Your task to perform on an android device: set the stopwatch Image 0: 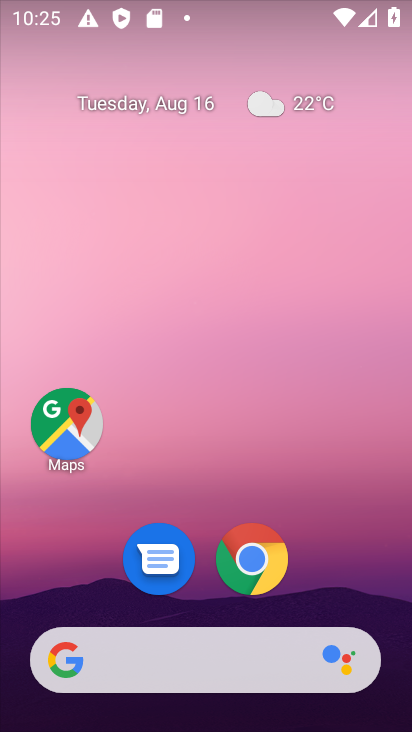
Step 0: drag from (194, 480) to (359, 686)
Your task to perform on an android device: set the stopwatch Image 1: 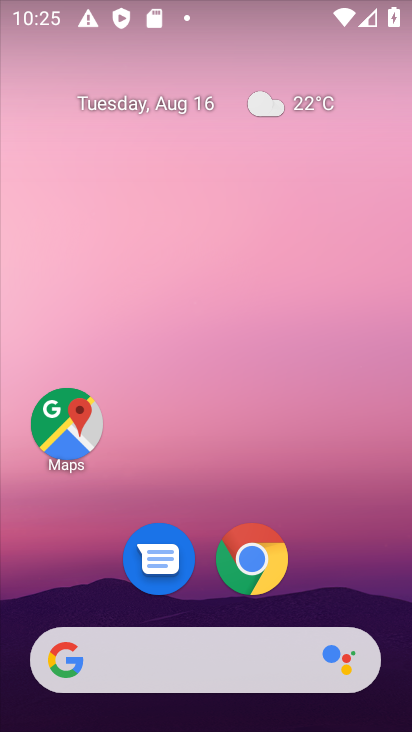
Step 1: drag from (204, 435) to (91, 2)
Your task to perform on an android device: set the stopwatch Image 2: 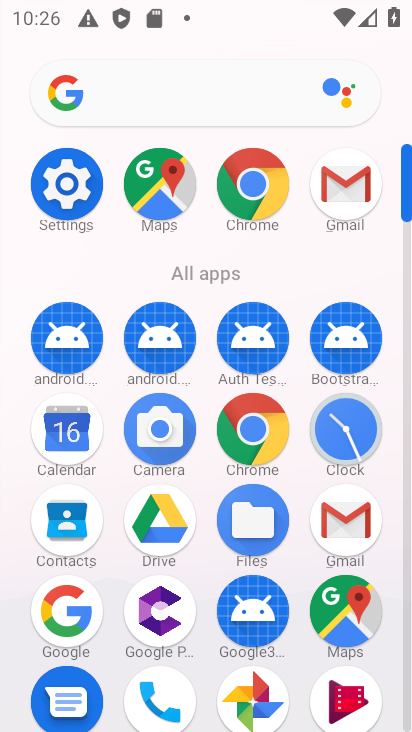
Step 2: click (347, 441)
Your task to perform on an android device: set the stopwatch Image 3: 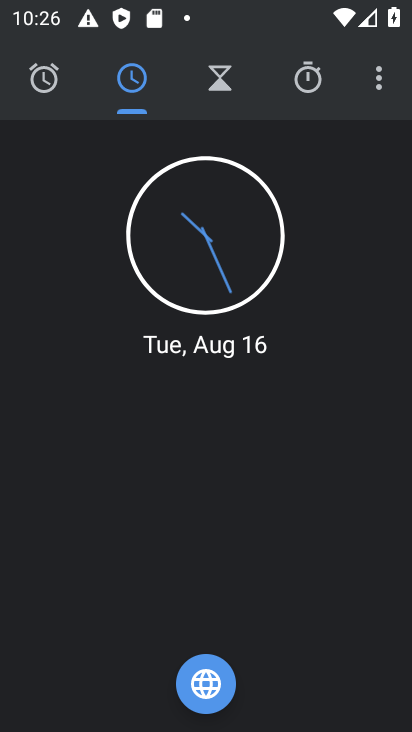
Step 3: click (308, 88)
Your task to perform on an android device: set the stopwatch Image 4: 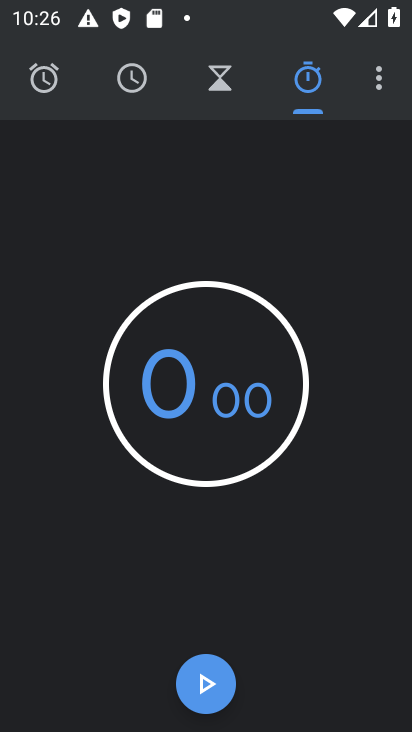
Step 4: click (210, 681)
Your task to perform on an android device: set the stopwatch Image 5: 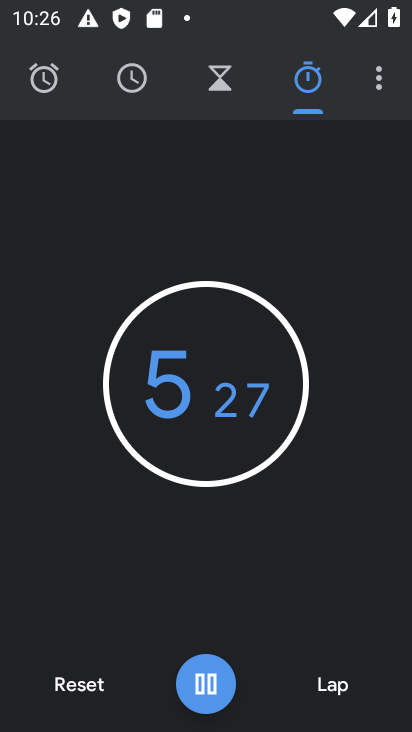
Step 5: click (210, 681)
Your task to perform on an android device: set the stopwatch Image 6: 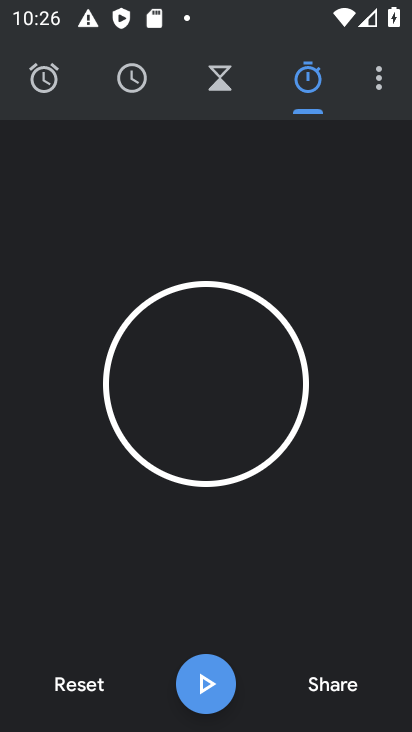
Step 6: task complete